Your task to perform on an android device: turn on showing notifications on the lock screen Image 0: 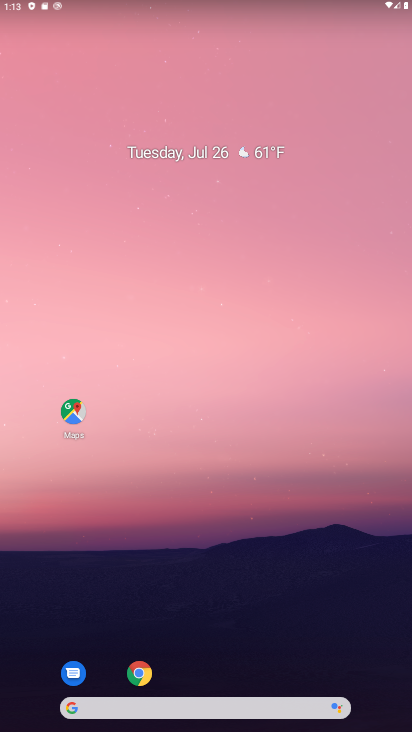
Step 0: drag from (183, 693) to (240, 205)
Your task to perform on an android device: turn on showing notifications on the lock screen Image 1: 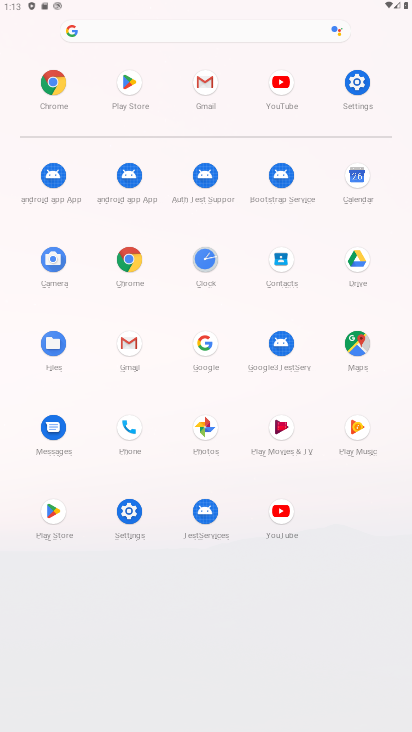
Step 1: click (127, 515)
Your task to perform on an android device: turn on showing notifications on the lock screen Image 2: 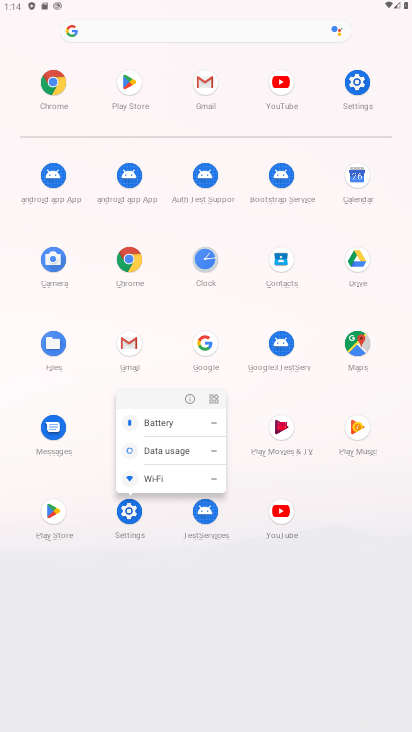
Step 2: click (188, 406)
Your task to perform on an android device: turn on showing notifications on the lock screen Image 3: 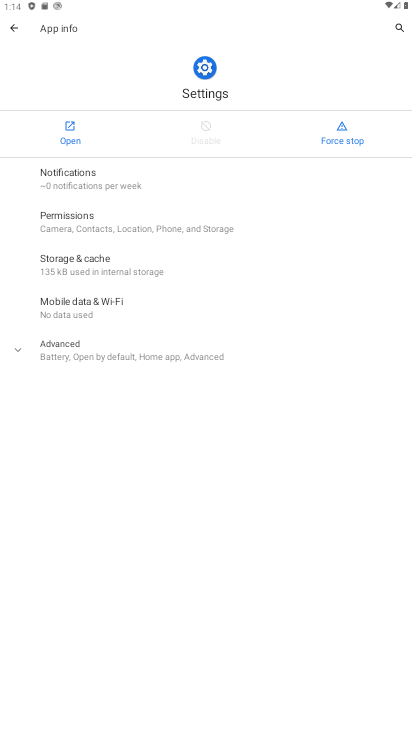
Step 3: click (64, 153)
Your task to perform on an android device: turn on showing notifications on the lock screen Image 4: 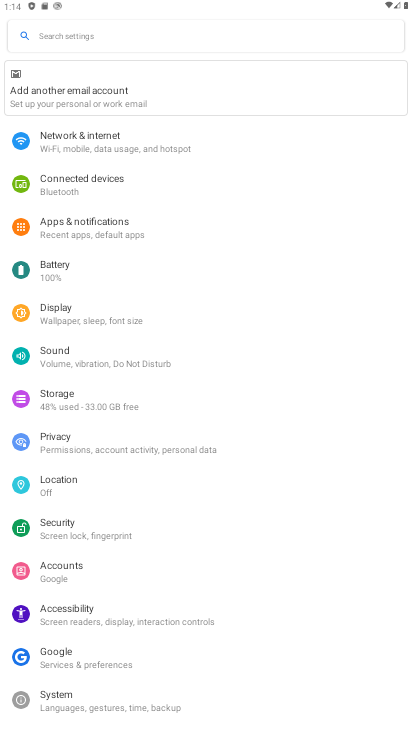
Step 4: drag from (129, 449) to (162, 262)
Your task to perform on an android device: turn on showing notifications on the lock screen Image 5: 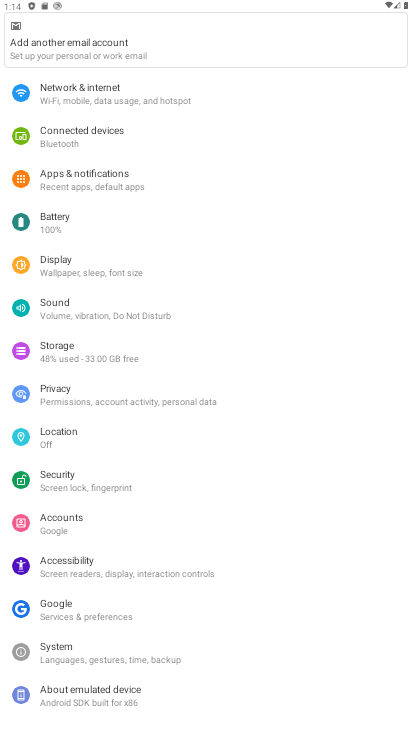
Step 5: click (97, 190)
Your task to perform on an android device: turn on showing notifications on the lock screen Image 6: 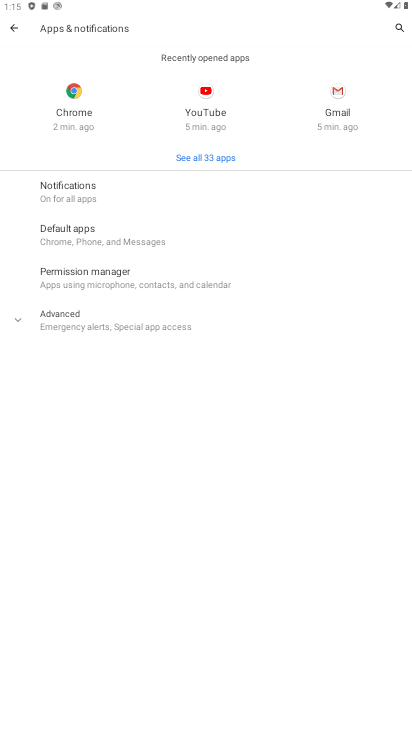
Step 6: click (84, 189)
Your task to perform on an android device: turn on showing notifications on the lock screen Image 7: 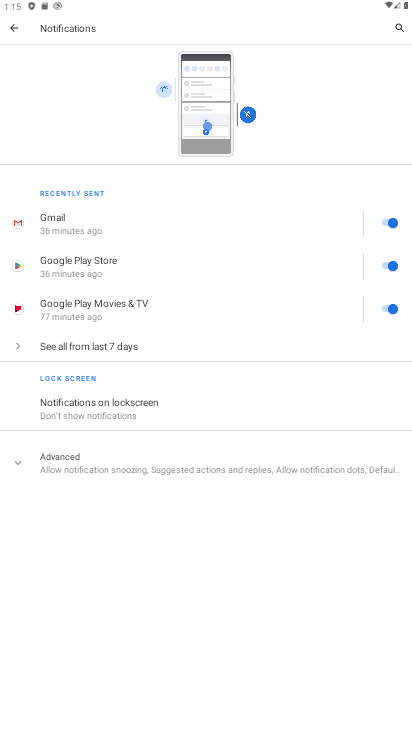
Step 7: click (159, 415)
Your task to perform on an android device: turn on showing notifications on the lock screen Image 8: 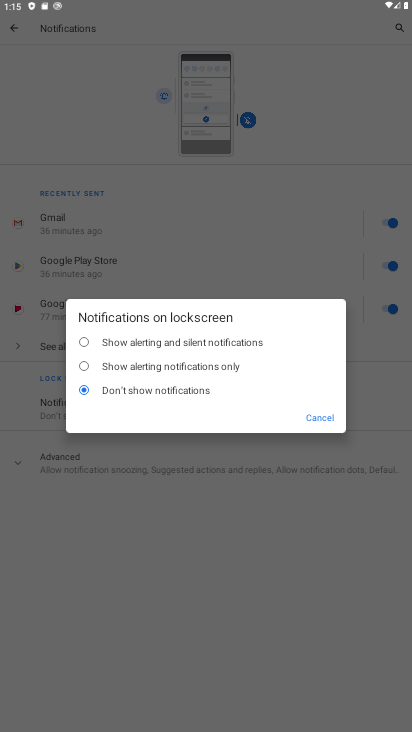
Step 8: click (148, 346)
Your task to perform on an android device: turn on showing notifications on the lock screen Image 9: 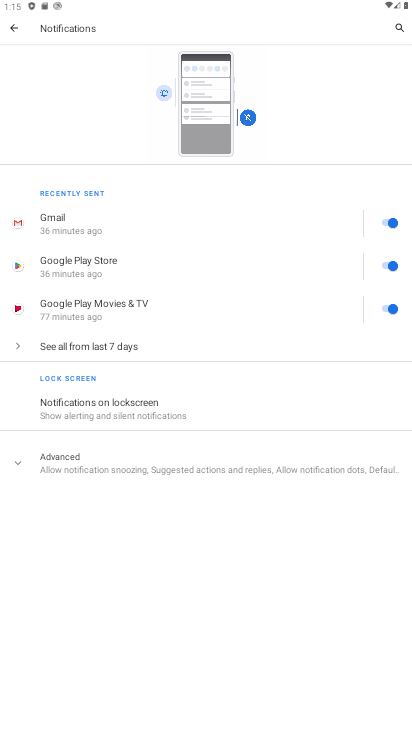
Step 9: task complete